Your task to perform on an android device: open a bookmark in the chrome app Image 0: 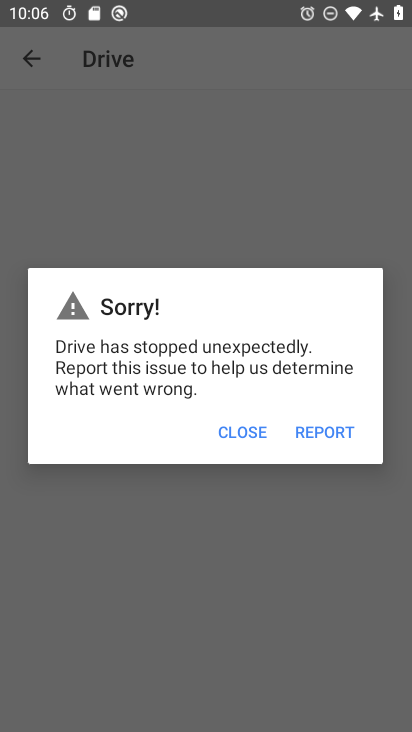
Step 0: press home button
Your task to perform on an android device: open a bookmark in the chrome app Image 1: 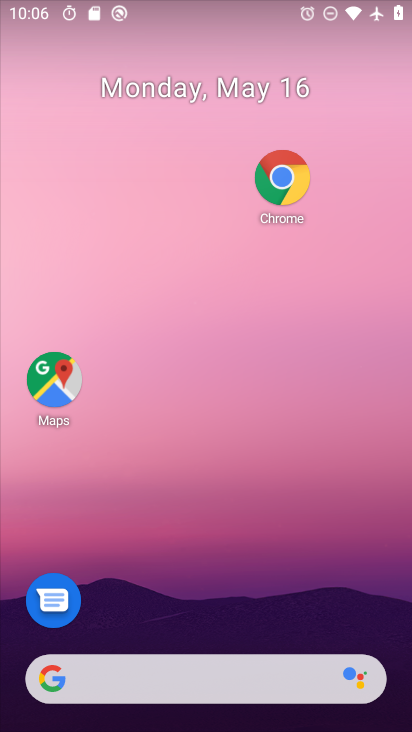
Step 1: click (272, 186)
Your task to perform on an android device: open a bookmark in the chrome app Image 2: 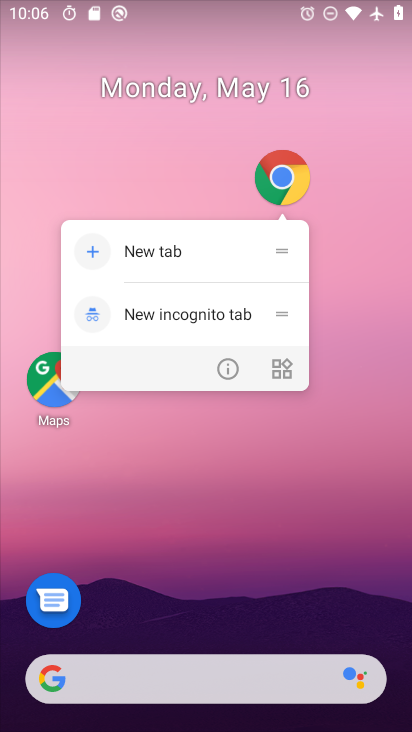
Step 2: click (263, 187)
Your task to perform on an android device: open a bookmark in the chrome app Image 3: 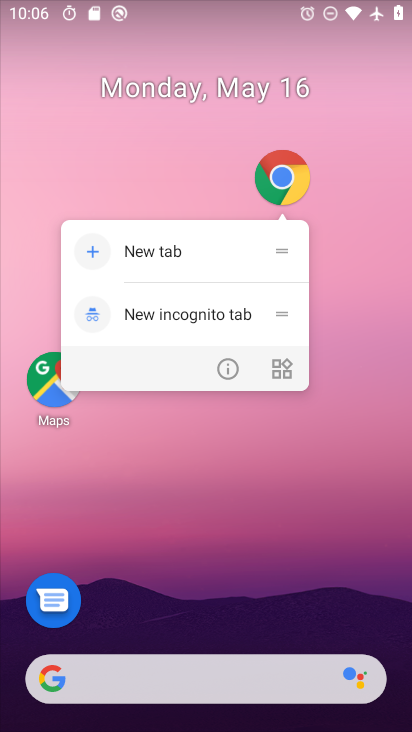
Step 3: click (274, 178)
Your task to perform on an android device: open a bookmark in the chrome app Image 4: 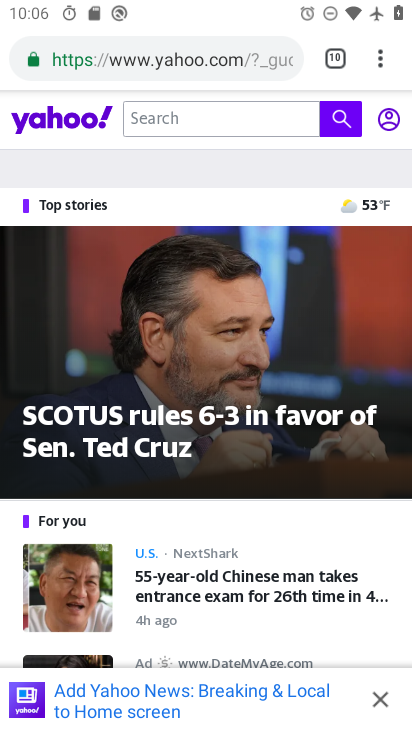
Step 4: task complete